Your task to perform on an android device: Go to eBay Image 0: 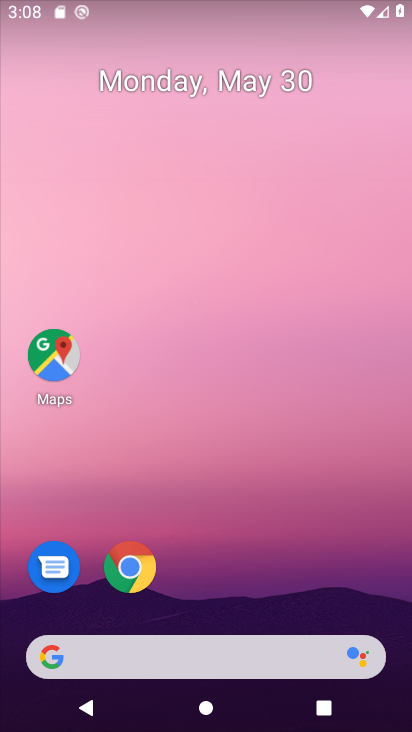
Step 0: click (127, 571)
Your task to perform on an android device: Go to eBay Image 1: 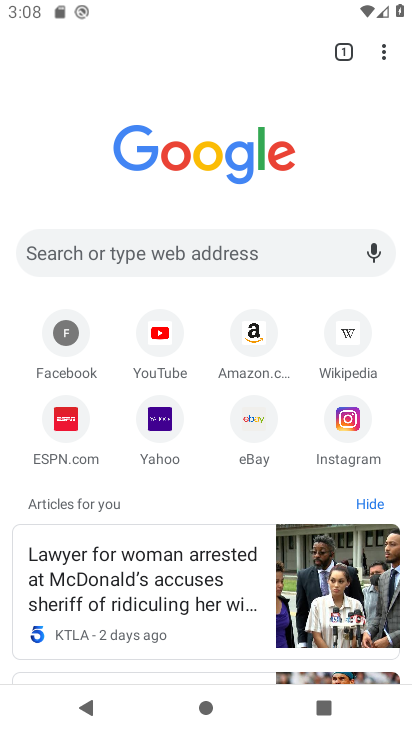
Step 1: click (214, 243)
Your task to perform on an android device: Go to eBay Image 2: 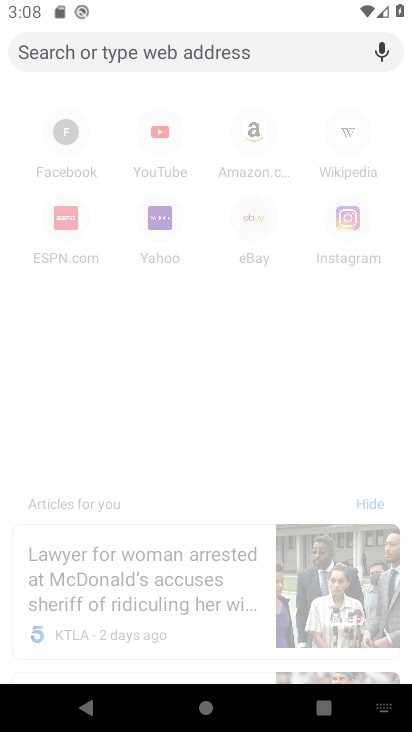
Step 2: type "ebay"
Your task to perform on an android device: Go to eBay Image 3: 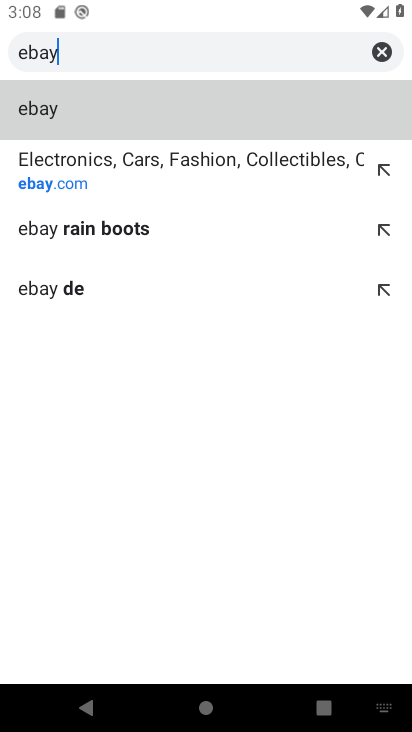
Step 3: click (39, 106)
Your task to perform on an android device: Go to eBay Image 4: 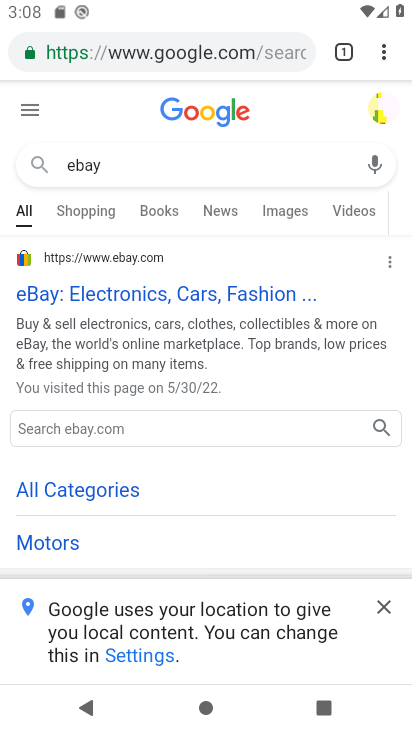
Step 4: click (74, 285)
Your task to perform on an android device: Go to eBay Image 5: 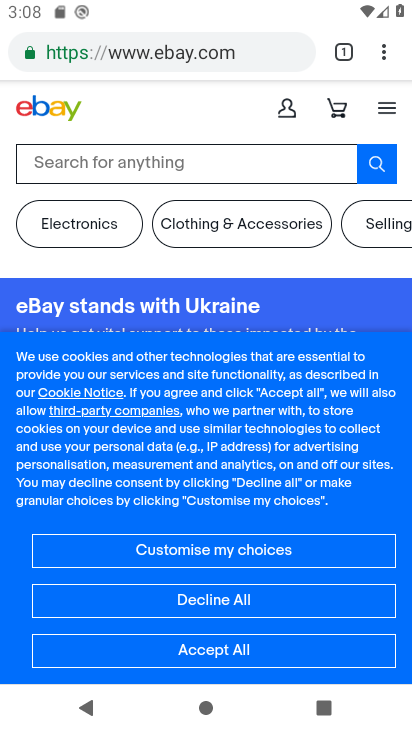
Step 5: task complete